Your task to perform on an android device: Open settings Image 0: 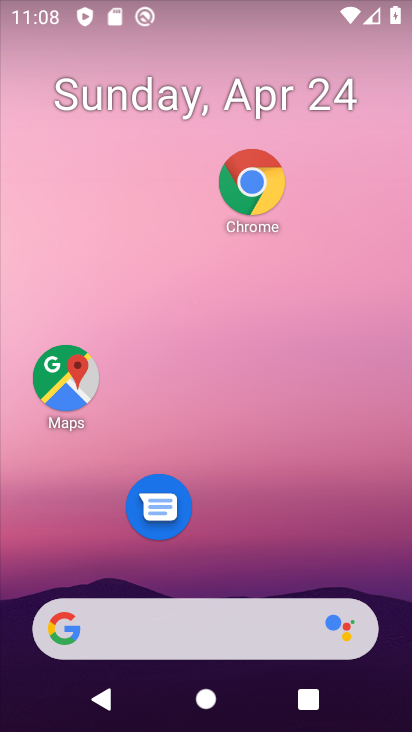
Step 0: drag from (241, 724) to (222, 114)
Your task to perform on an android device: Open settings Image 1: 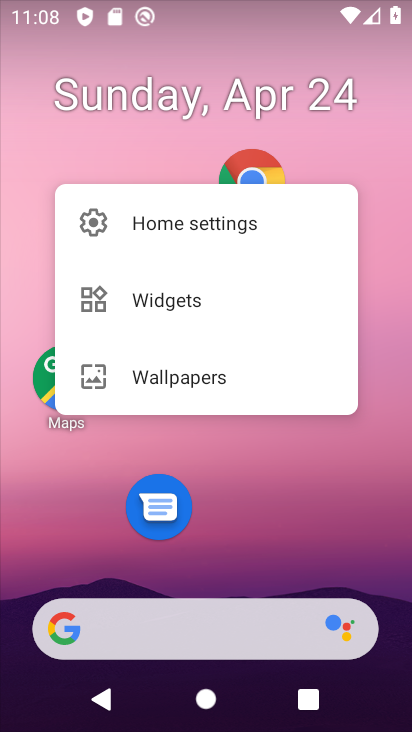
Step 1: click (272, 455)
Your task to perform on an android device: Open settings Image 2: 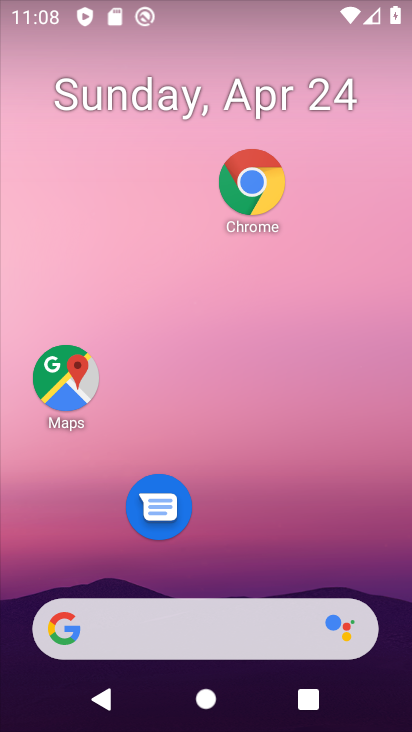
Step 2: drag from (227, 719) to (232, 79)
Your task to perform on an android device: Open settings Image 3: 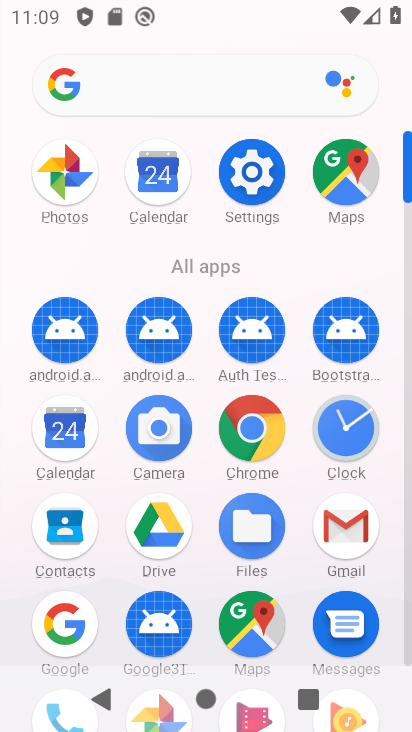
Step 3: click (251, 173)
Your task to perform on an android device: Open settings Image 4: 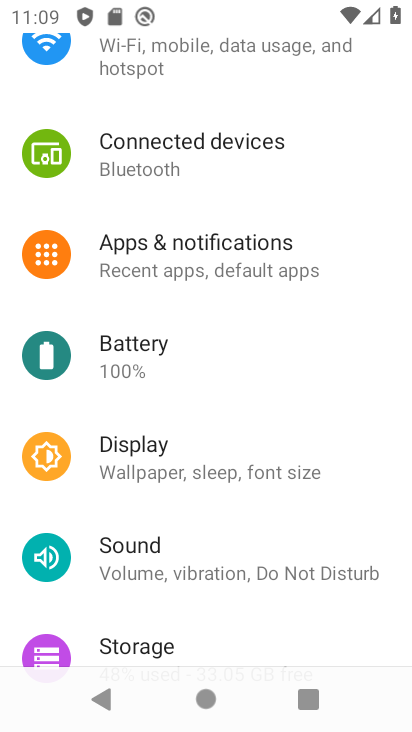
Step 4: task complete